Your task to perform on an android device: turn on data saver in the chrome app Image 0: 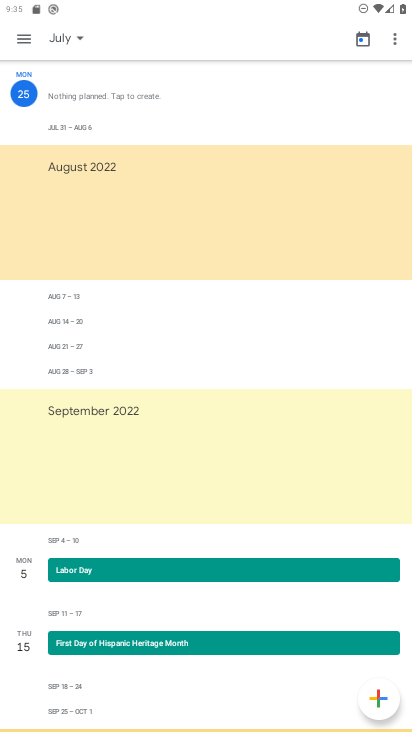
Step 0: press back button
Your task to perform on an android device: turn on data saver in the chrome app Image 1: 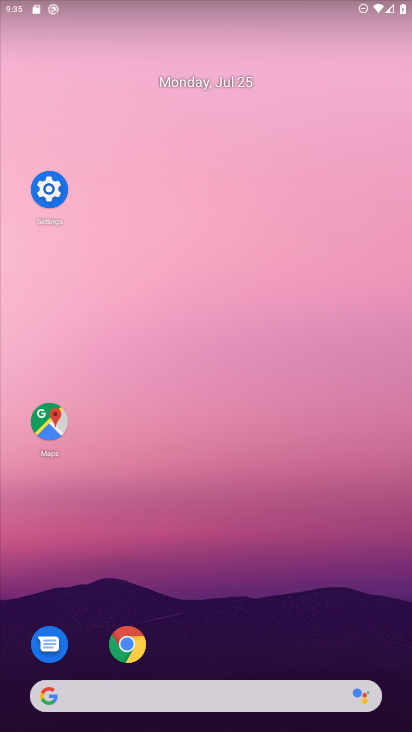
Step 1: click (122, 640)
Your task to perform on an android device: turn on data saver in the chrome app Image 2: 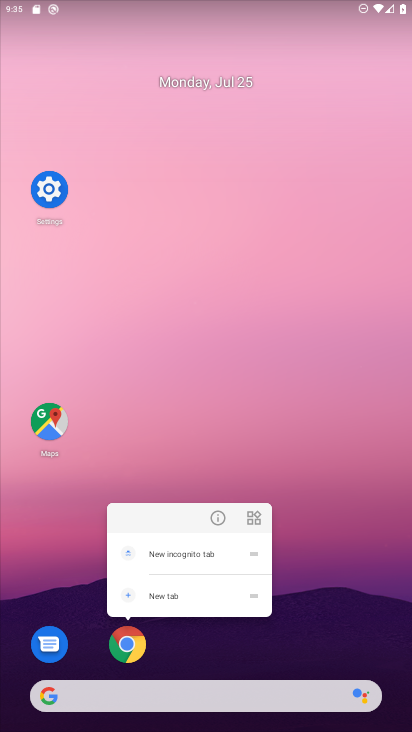
Step 2: click (135, 642)
Your task to perform on an android device: turn on data saver in the chrome app Image 3: 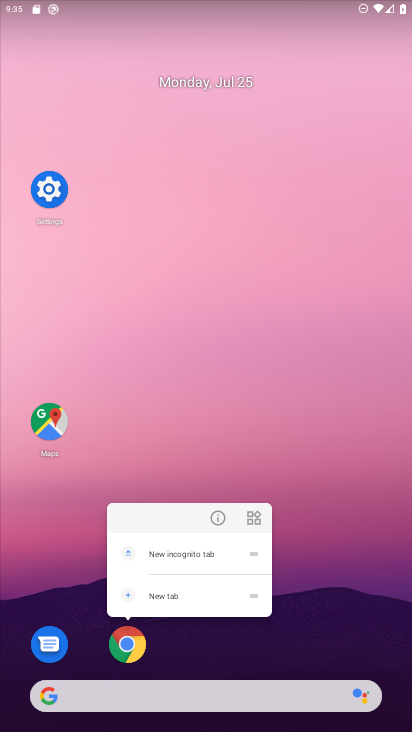
Step 3: click (133, 644)
Your task to perform on an android device: turn on data saver in the chrome app Image 4: 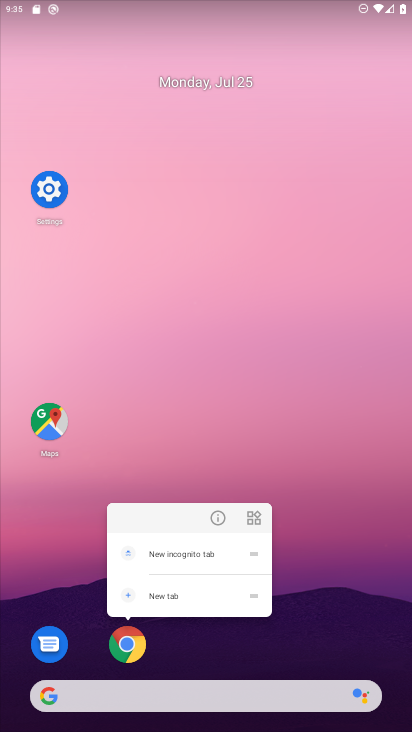
Step 4: click (132, 644)
Your task to perform on an android device: turn on data saver in the chrome app Image 5: 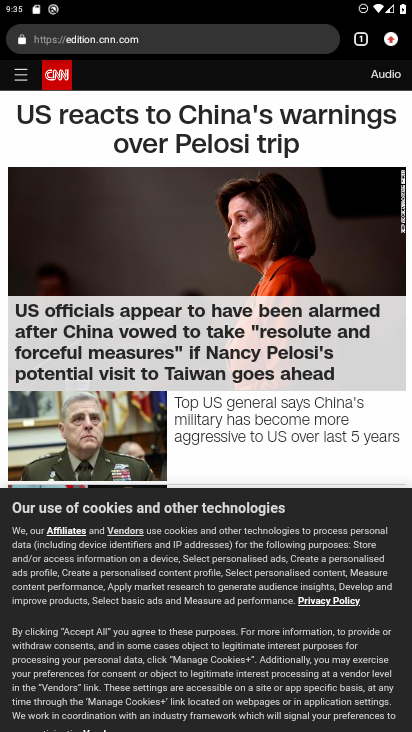
Step 5: click (396, 33)
Your task to perform on an android device: turn on data saver in the chrome app Image 6: 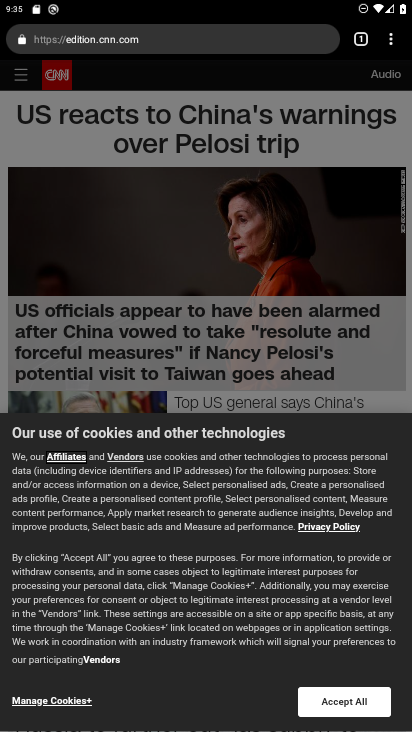
Step 6: click (385, 47)
Your task to perform on an android device: turn on data saver in the chrome app Image 7: 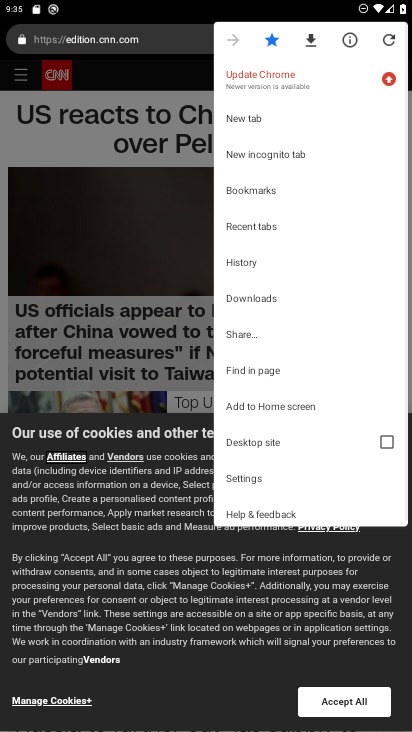
Step 7: click (263, 475)
Your task to perform on an android device: turn on data saver in the chrome app Image 8: 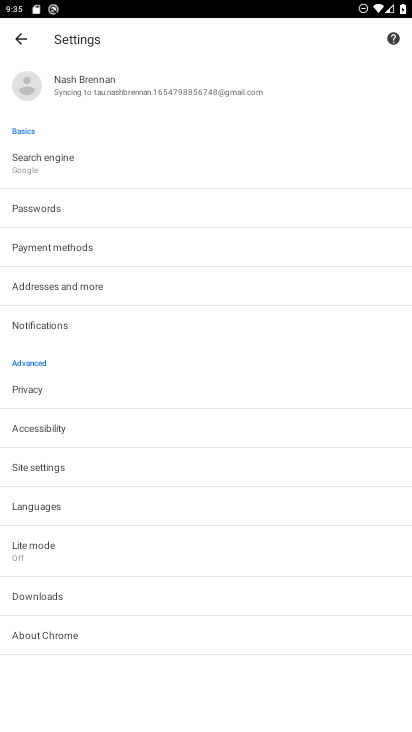
Step 8: click (149, 553)
Your task to perform on an android device: turn on data saver in the chrome app Image 9: 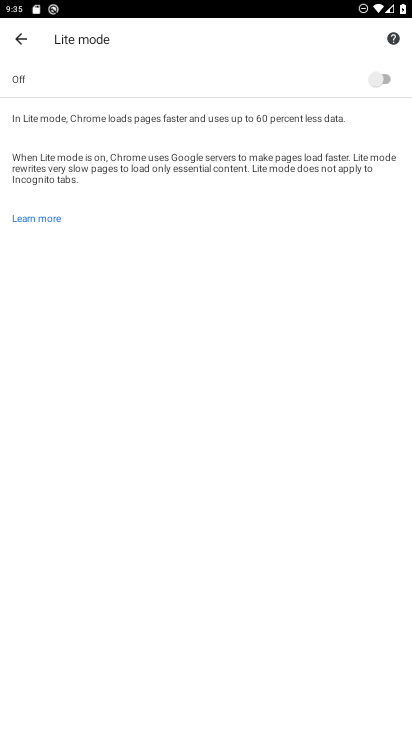
Step 9: click (379, 76)
Your task to perform on an android device: turn on data saver in the chrome app Image 10: 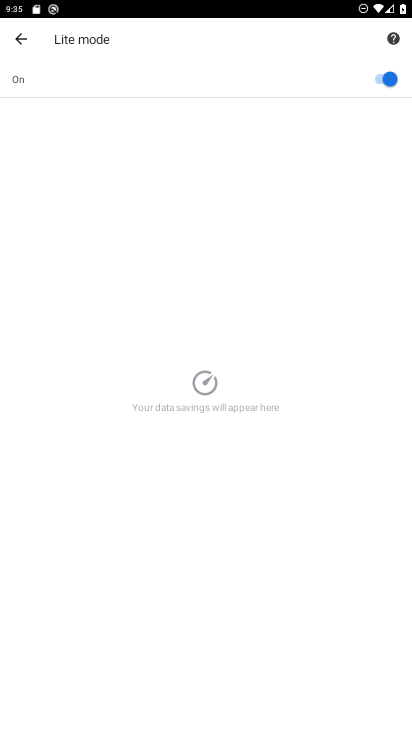
Step 10: task complete